Your task to perform on an android device: Show me recent news Image 0: 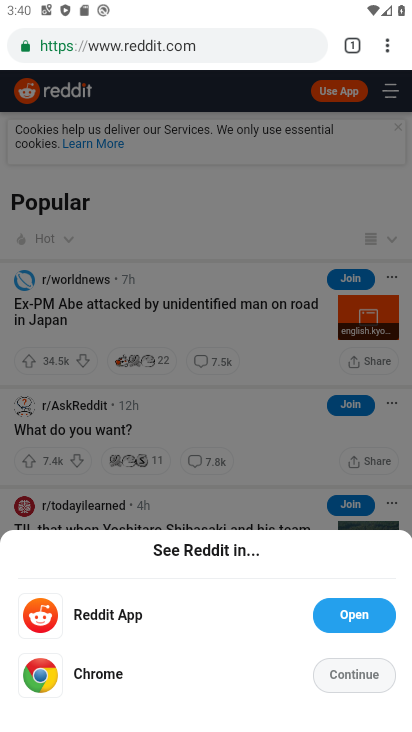
Step 0: press home button
Your task to perform on an android device: Show me recent news Image 1: 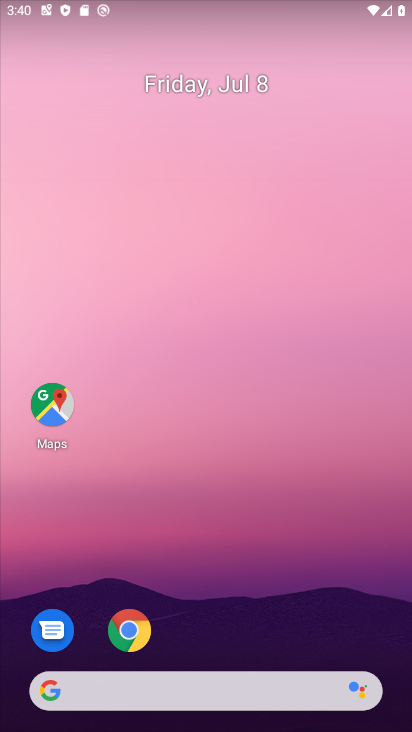
Step 1: click (158, 685)
Your task to perform on an android device: Show me recent news Image 2: 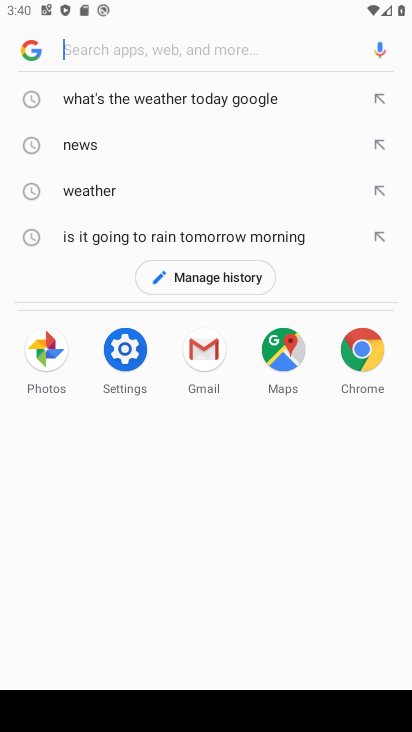
Step 2: type "recent news"
Your task to perform on an android device: Show me recent news Image 3: 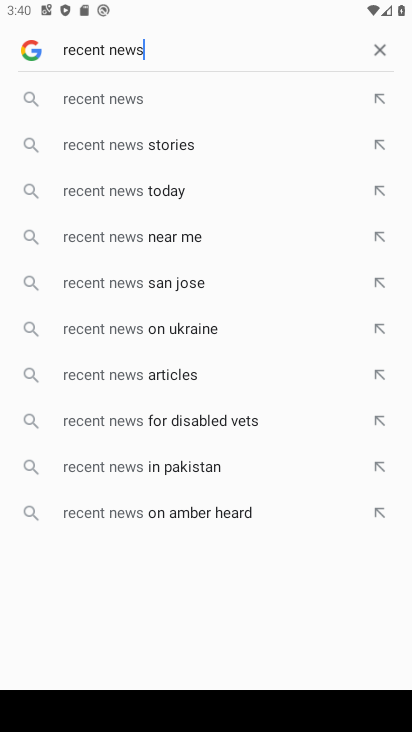
Step 3: click (213, 100)
Your task to perform on an android device: Show me recent news Image 4: 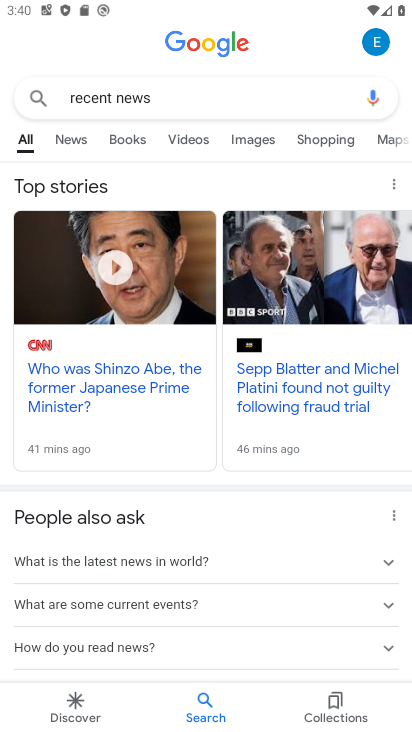
Step 4: click (73, 134)
Your task to perform on an android device: Show me recent news Image 5: 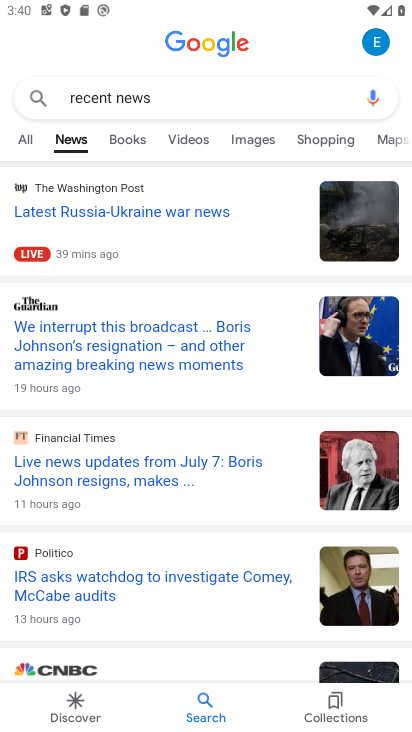
Step 5: task complete